Your task to perform on an android device: remove spam from my inbox in the gmail app Image 0: 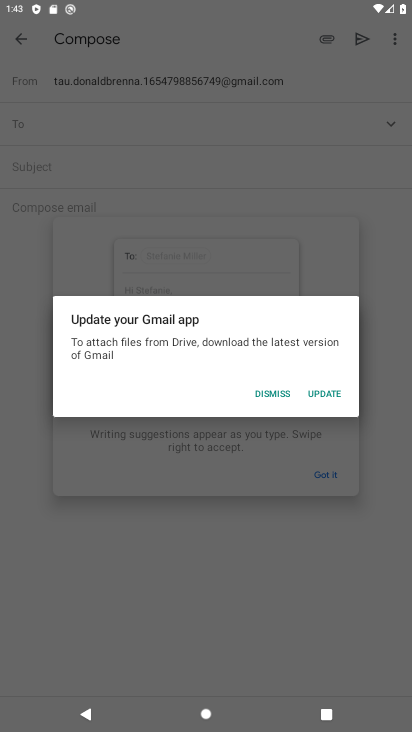
Step 0: press home button
Your task to perform on an android device: remove spam from my inbox in the gmail app Image 1: 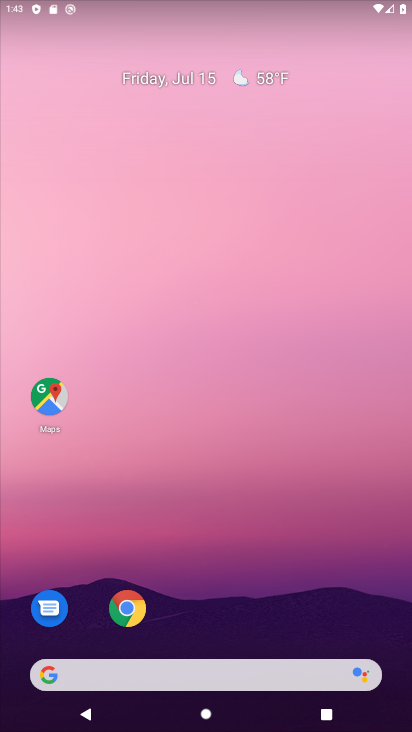
Step 1: drag from (189, 683) to (308, 157)
Your task to perform on an android device: remove spam from my inbox in the gmail app Image 2: 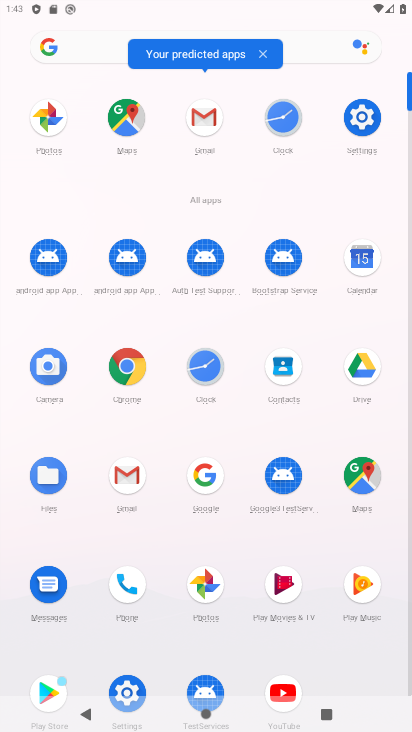
Step 2: click (127, 458)
Your task to perform on an android device: remove spam from my inbox in the gmail app Image 3: 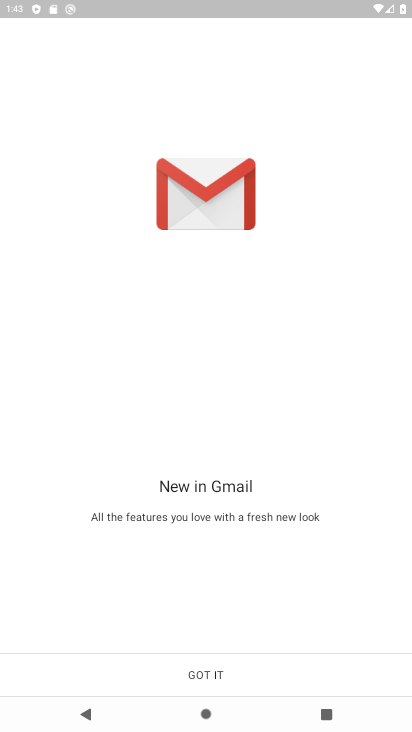
Step 3: click (160, 688)
Your task to perform on an android device: remove spam from my inbox in the gmail app Image 4: 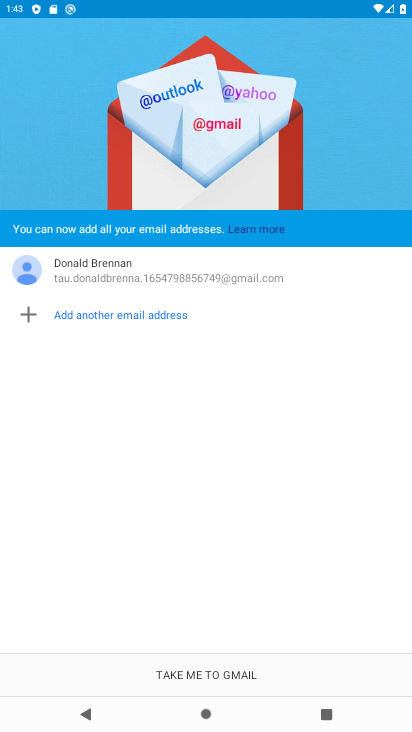
Step 4: click (158, 688)
Your task to perform on an android device: remove spam from my inbox in the gmail app Image 5: 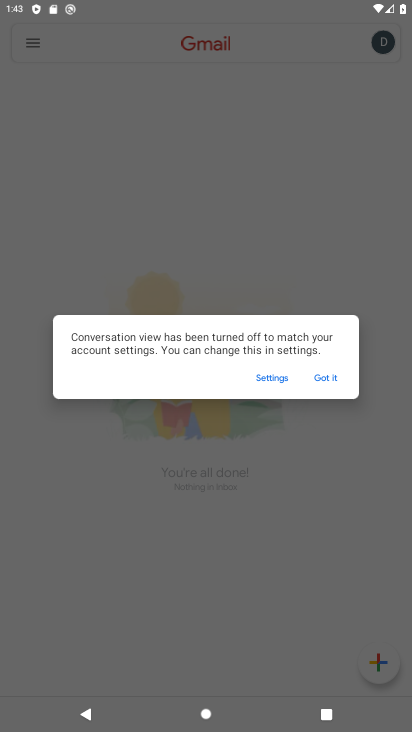
Step 5: click (319, 380)
Your task to perform on an android device: remove spam from my inbox in the gmail app Image 6: 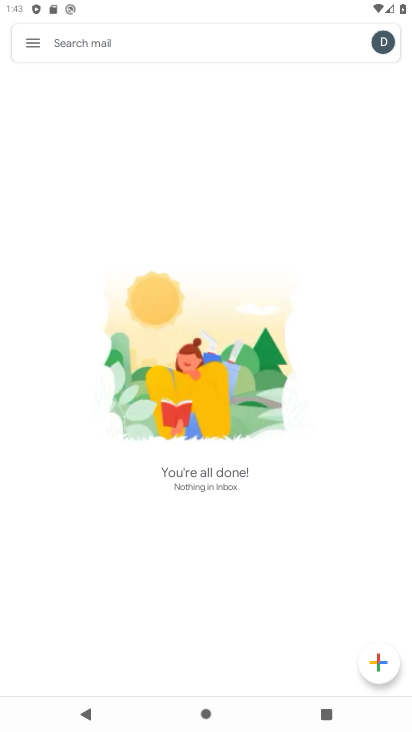
Step 6: click (27, 54)
Your task to perform on an android device: remove spam from my inbox in the gmail app Image 7: 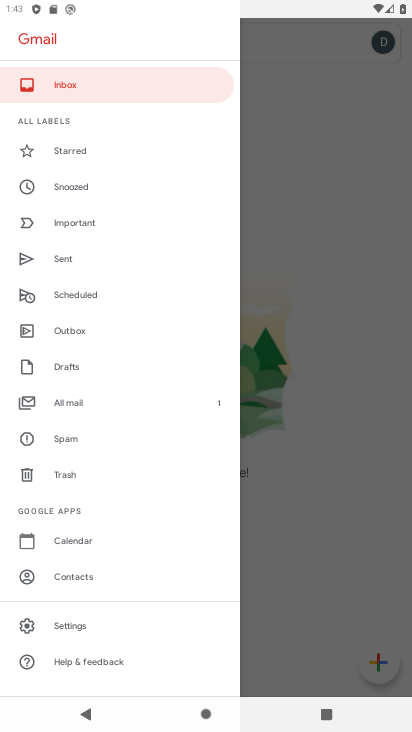
Step 7: click (89, 450)
Your task to perform on an android device: remove spam from my inbox in the gmail app Image 8: 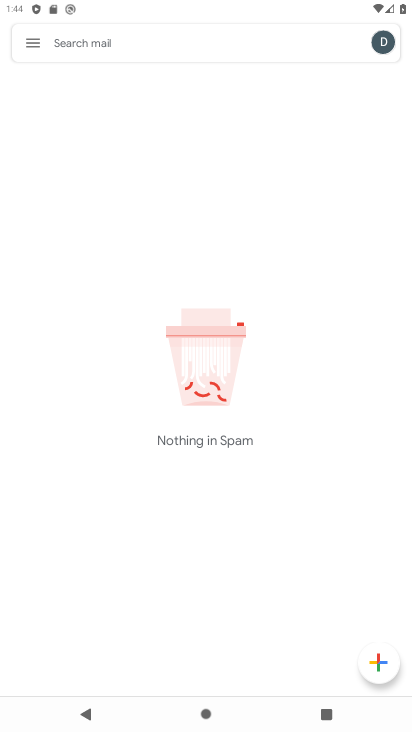
Step 8: task complete